Your task to perform on an android device: Open internet settings Image 0: 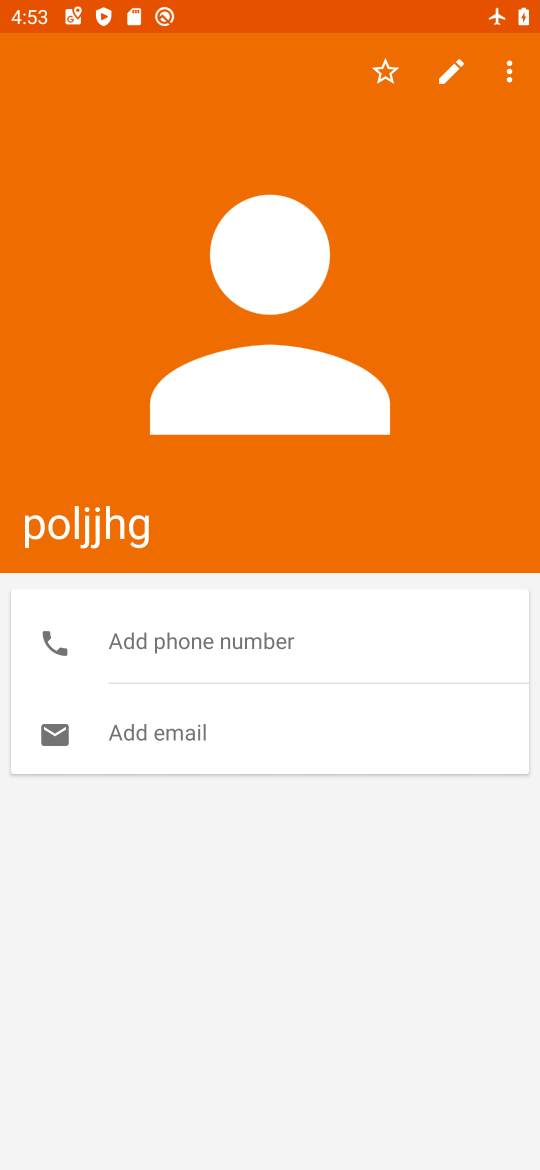
Step 0: press home button
Your task to perform on an android device: Open internet settings Image 1: 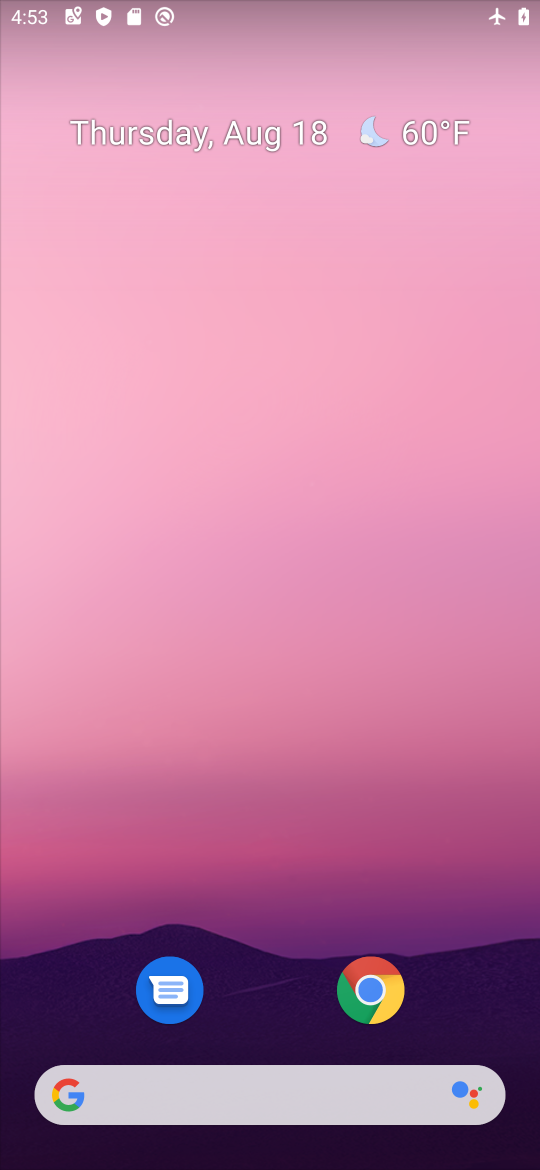
Step 1: drag from (270, 851) to (374, 91)
Your task to perform on an android device: Open internet settings Image 2: 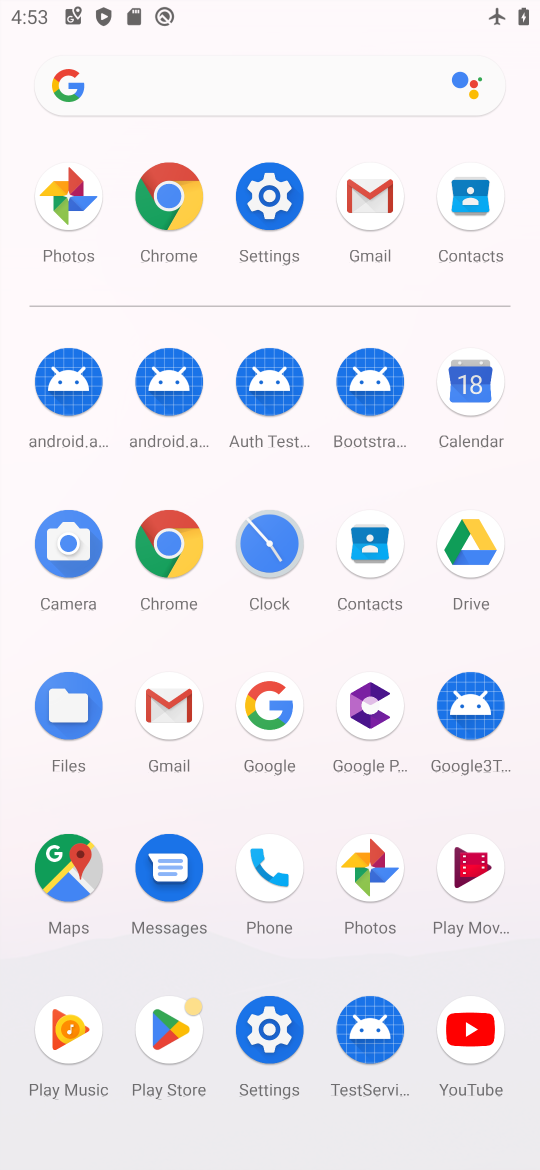
Step 2: click (259, 1054)
Your task to perform on an android device: Open internet settings Image 3: 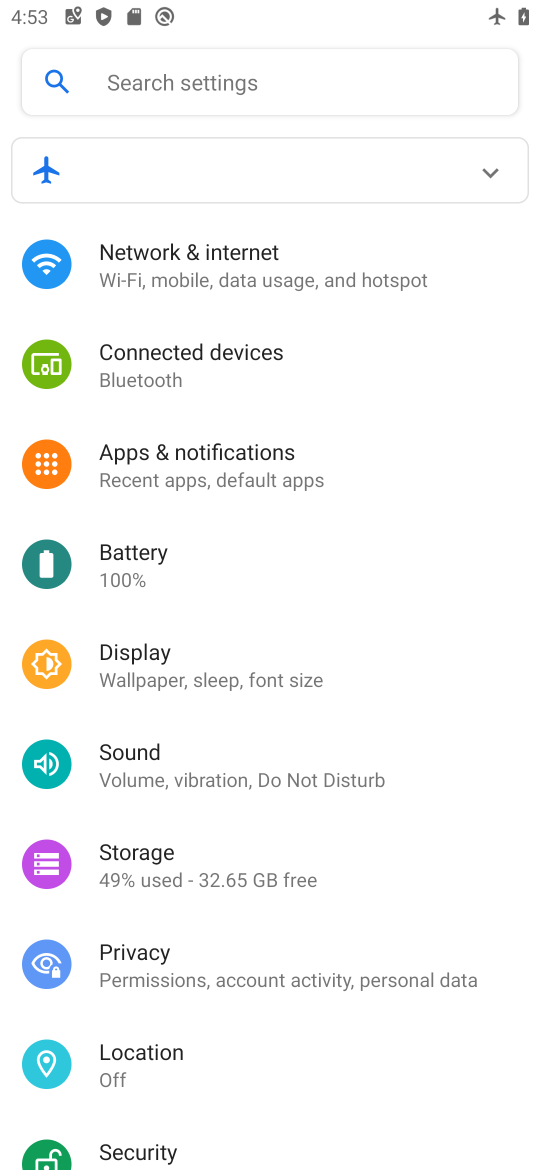
Step 3: click (166, 255)
Your task to perform on an android device: Open internet settings Image 4: 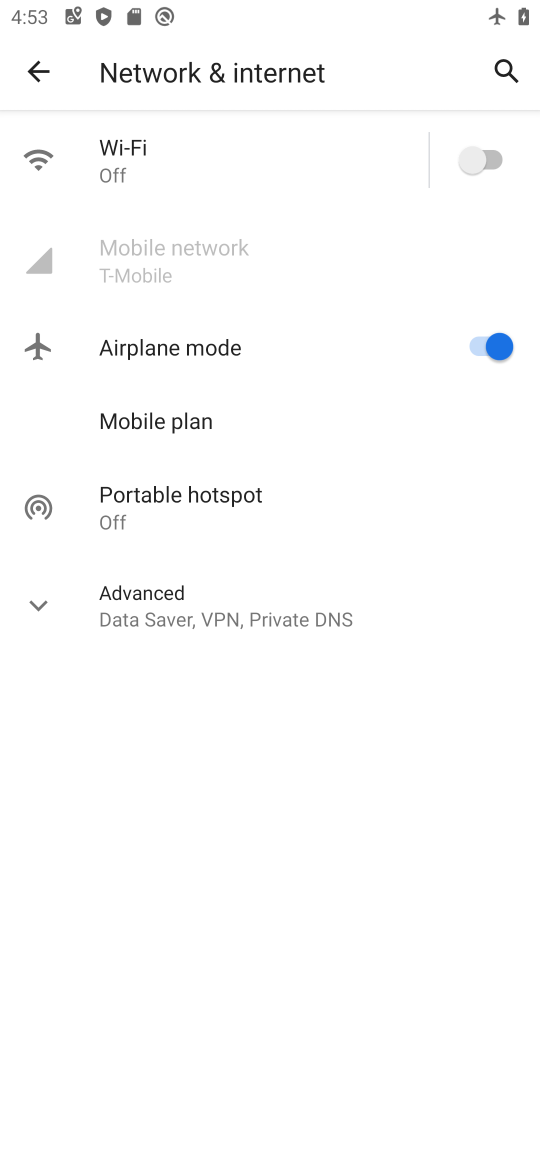
Step 4: task complete